Your task to perform on an android device: change keyboard looks Image 0: 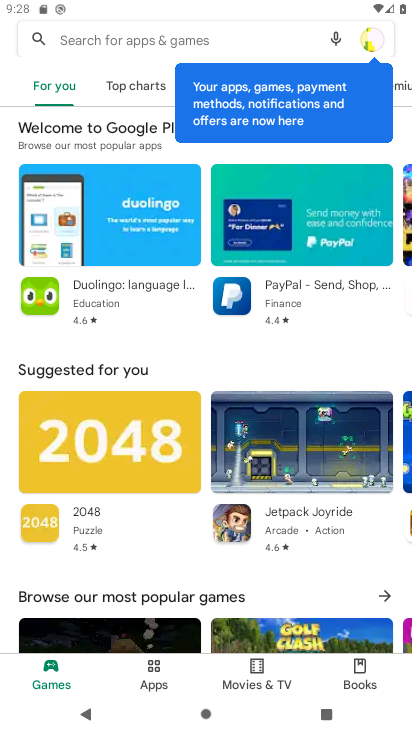
Step 0: press home button
Your task to perform on an android device: change keyboard looks Image 1: 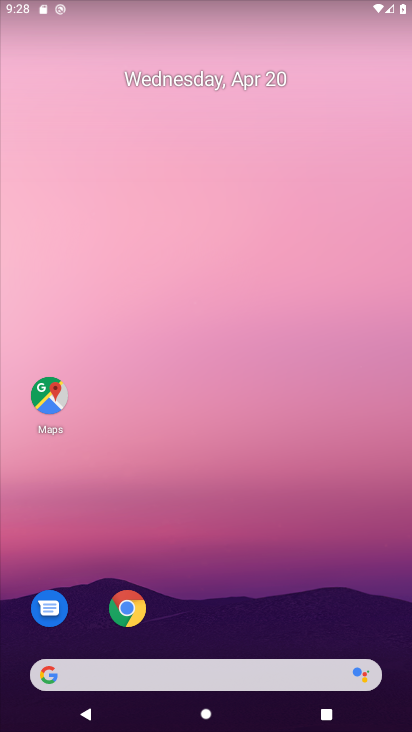
Step 1: drag from (212, 615) to (255, 36)
Your task to perform on an android device: change keyboard looks Image 2: 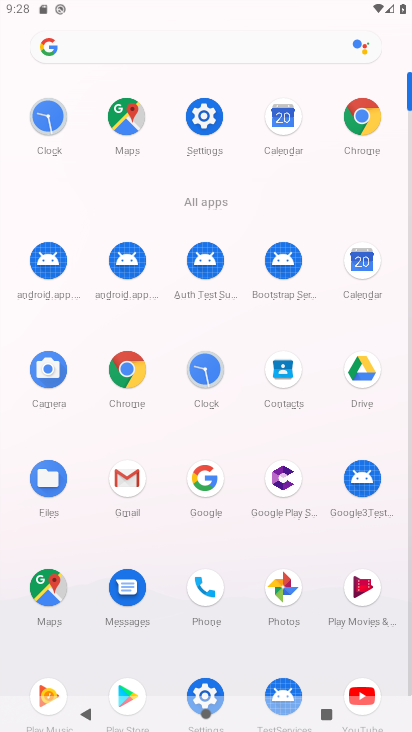
Step 2: click (207, 137)
Your task to perform on an android device: change keyboard looks Image 3: 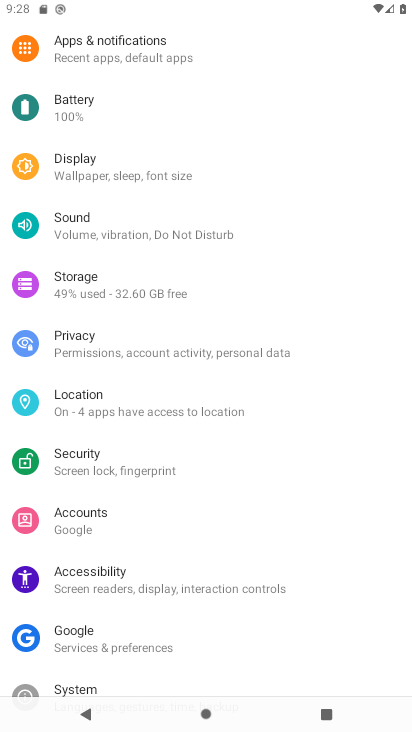
Step 3: drag from (73, 678) to (126, 389)
Your task to perform on an android device: change keyboard looks Image 4: 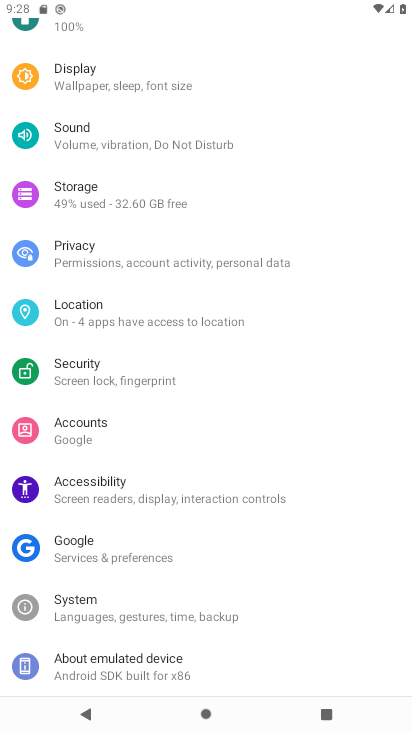
Step 4: click (103, 596)
Your task to perform on an android device: change keyboard looks Image 5: 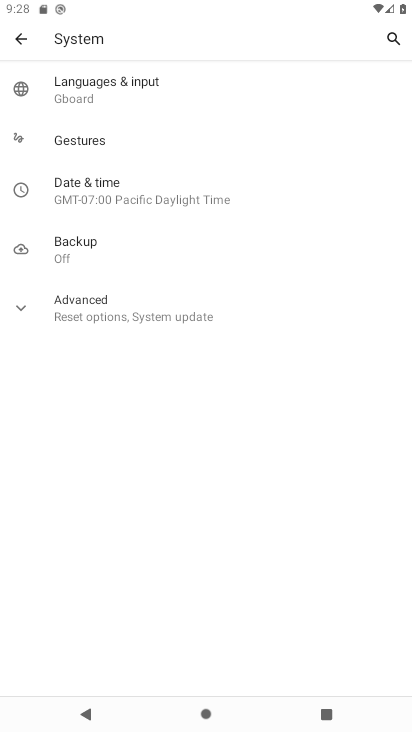
Step 5: click (78, 89)
Your task to perform on an android device: change keyboard looks Image 6: 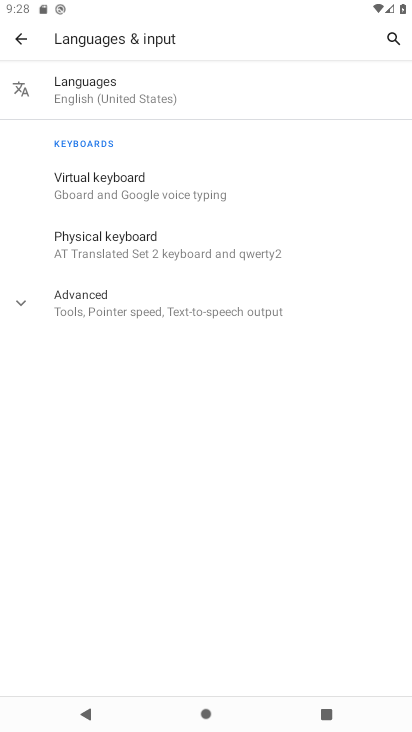
Step 6: click (110, 172)
Your task to perform on an android device: change keyboard looks Image 7: 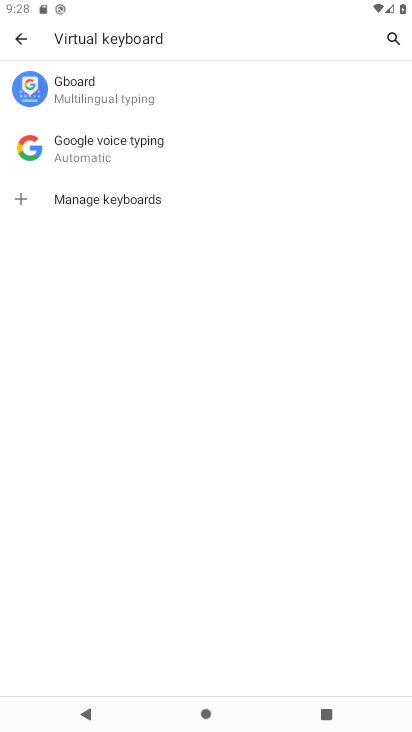
Step 7: click (89, 83)
Your task to perform on an android device: change keyboard looks Image 8: 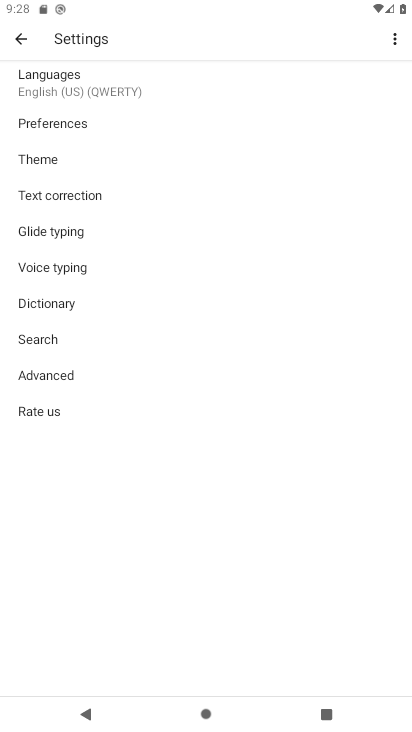
Step 8: click (12, 153)
Your task to perform on an android device: change keyboard looks Image 9: 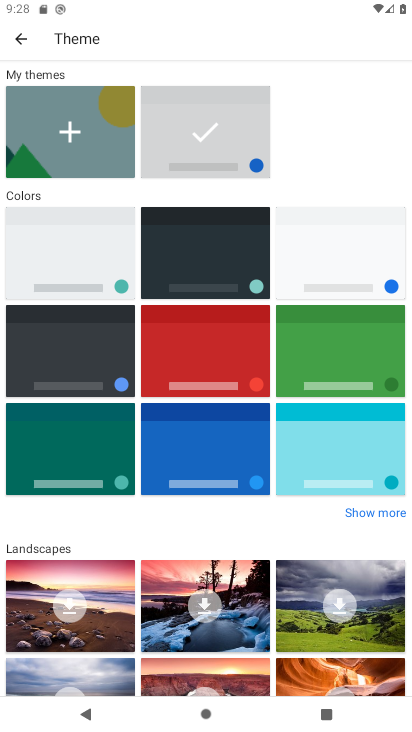
Step 9: click (204, 350)
Your task to perform on an android device: change keyboard looks Image 10: 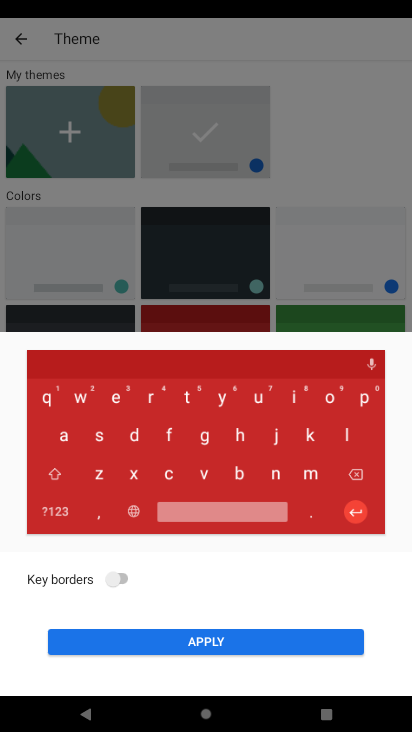
Step 10: click (146, 636)
Your task to perform on an android device: change keyboard looks Image 11: 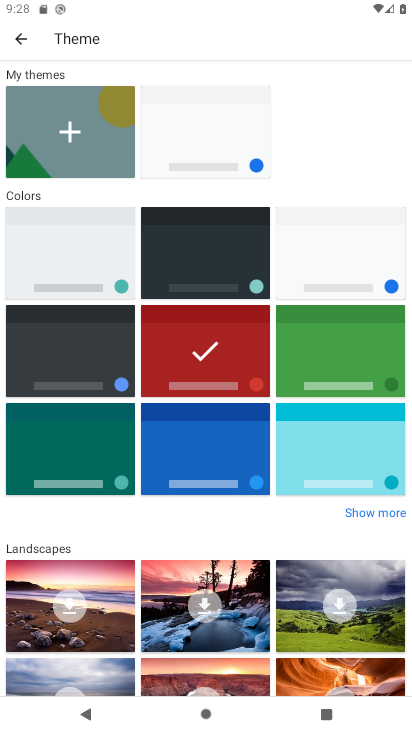
Step 11: task complete